Your task to perform on an android device: Toggle the flashlight Image 0: 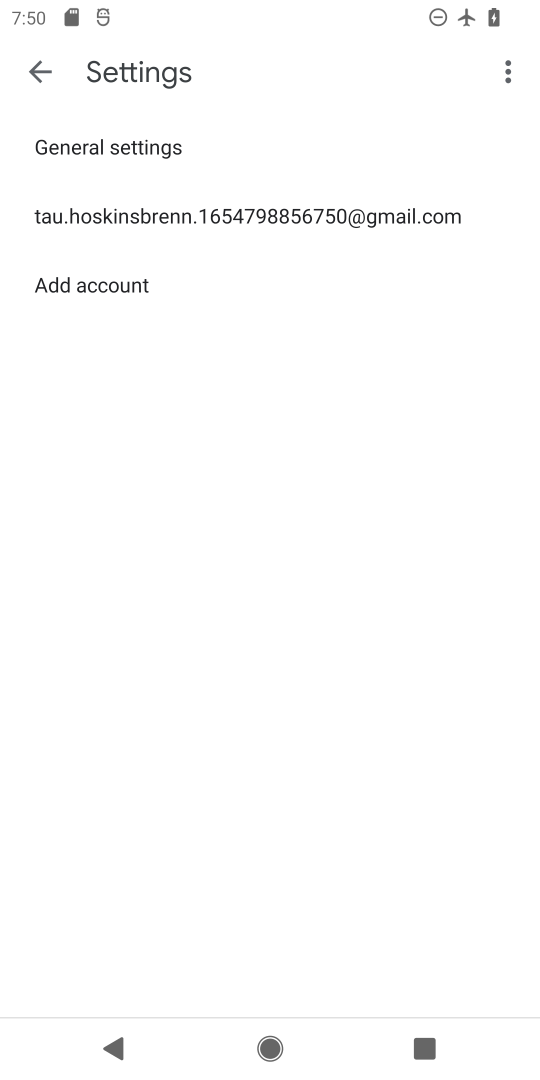
Step 0: press back button
Your task to perform on an android device: Toggle the flashlight Image 1: 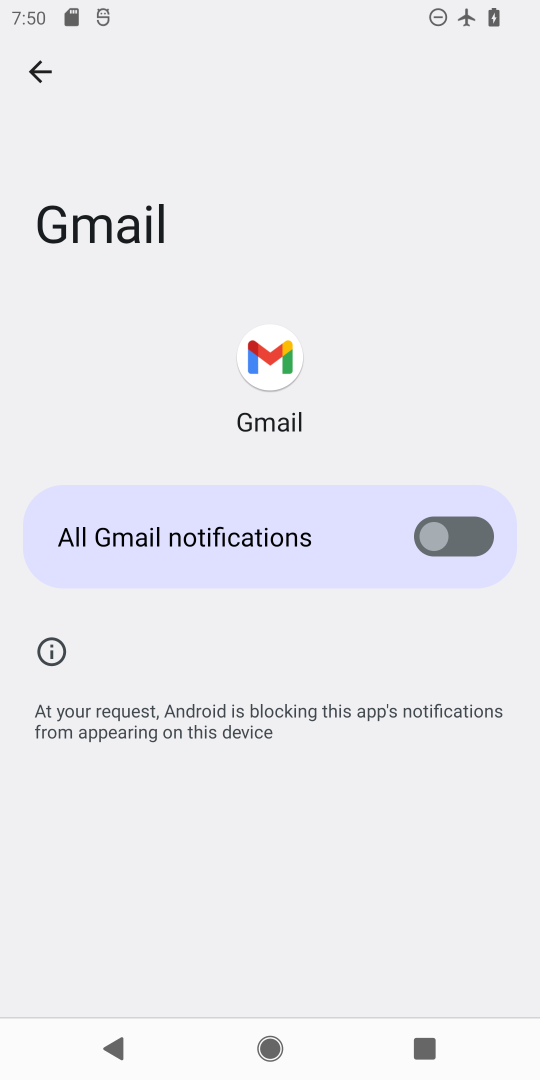
Step 1: press home button
Your task to perform on an android device: Toggle the flashlight Image 2: 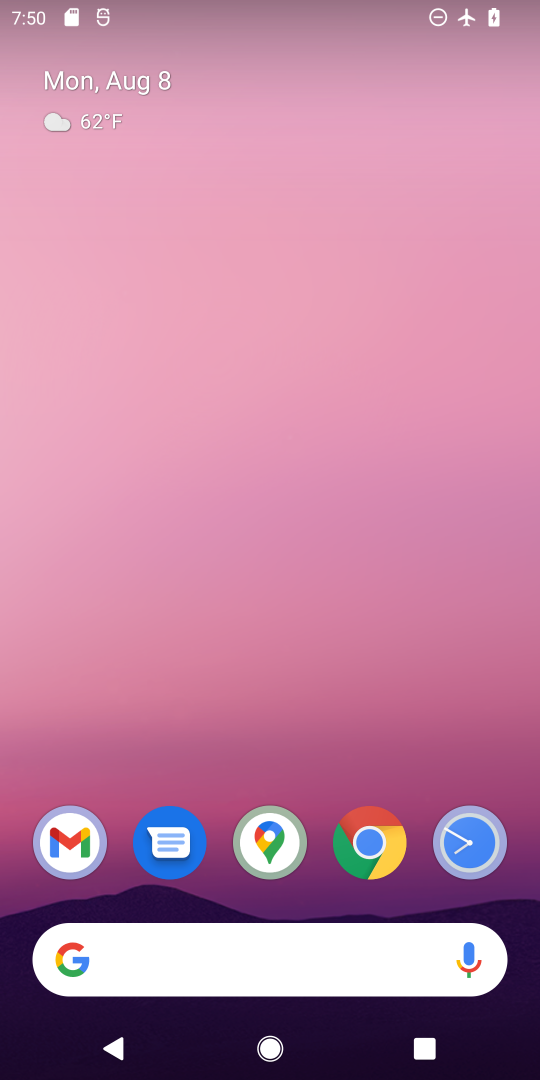
Step 2: drag from (337, 909) to (284, 38)
Your task to perform on an android device: Toggle the flashlight Image 3: 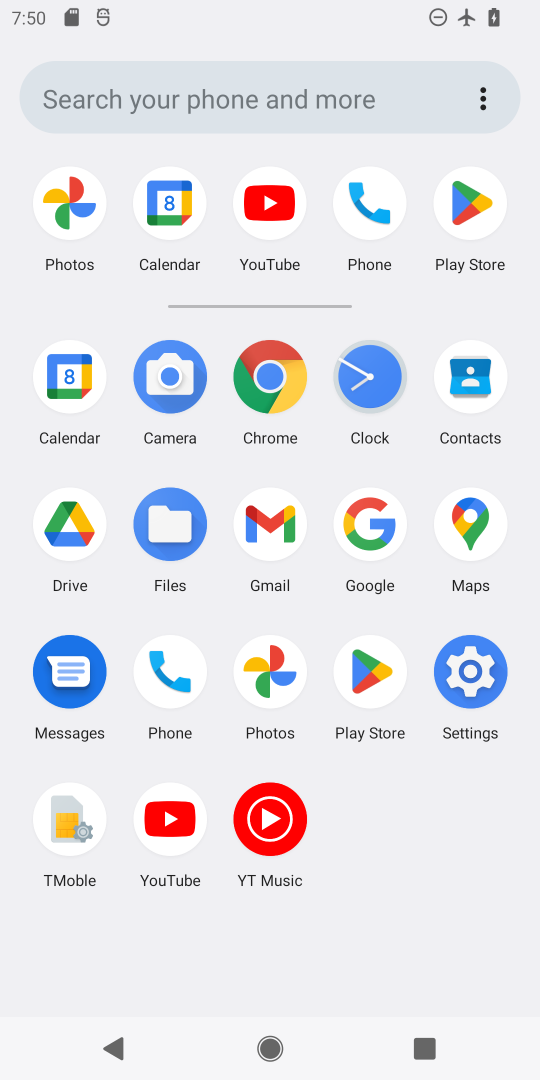
Step 3: click (471, 657)
Your task to perform on an android device: Toggle the flashlight Image 4: 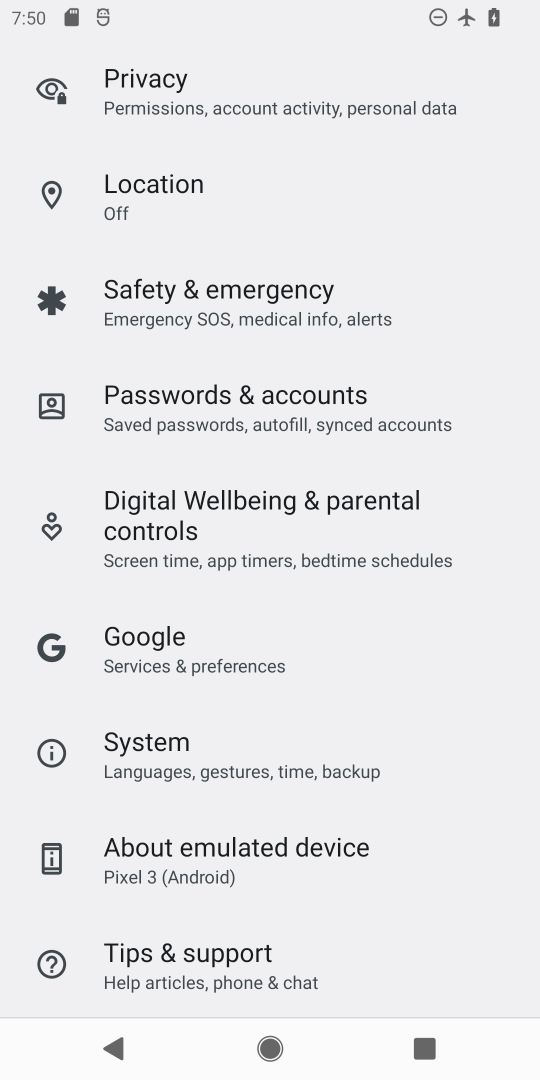
Step 4: task complete